Your task to perform on an android device: open a new tab in the chrome app Image 0: 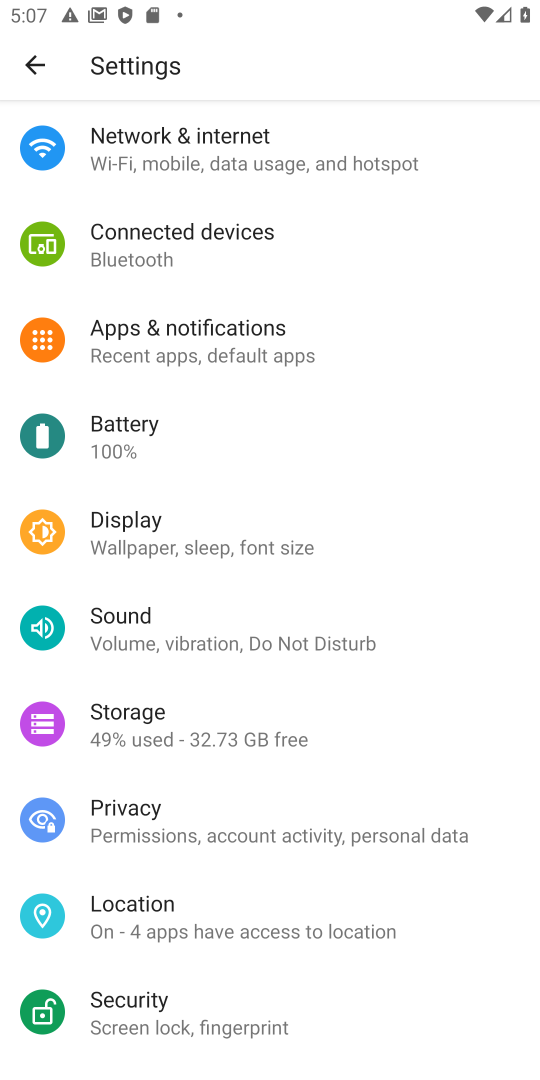
Step 0: press home button
Your task to perform on an android device: open a new tab in the chrome app Image 1: 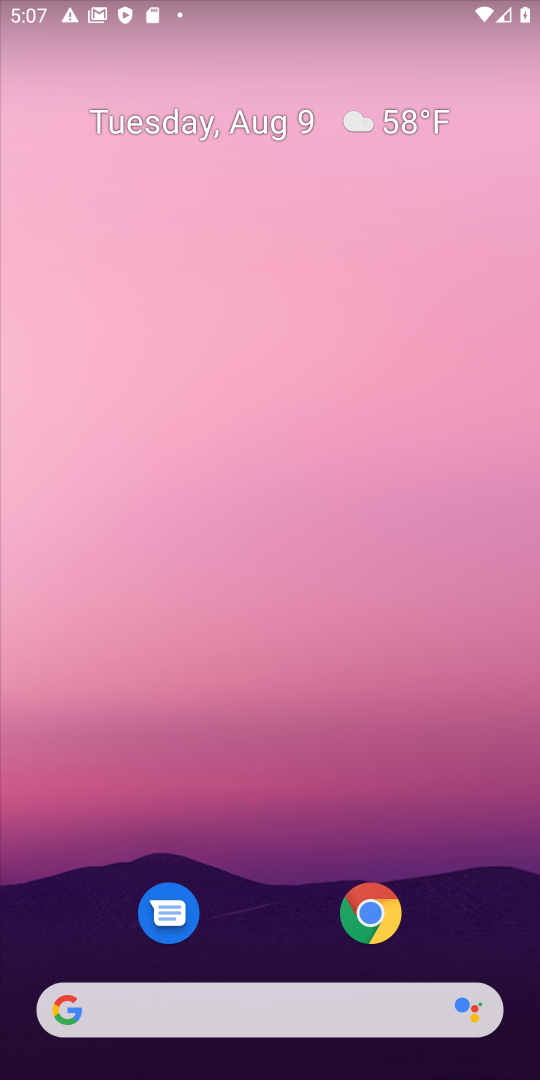
Step 1: click (379, 903)
Your task to perform on an android device: open a new tab in the chrome app Image 2: 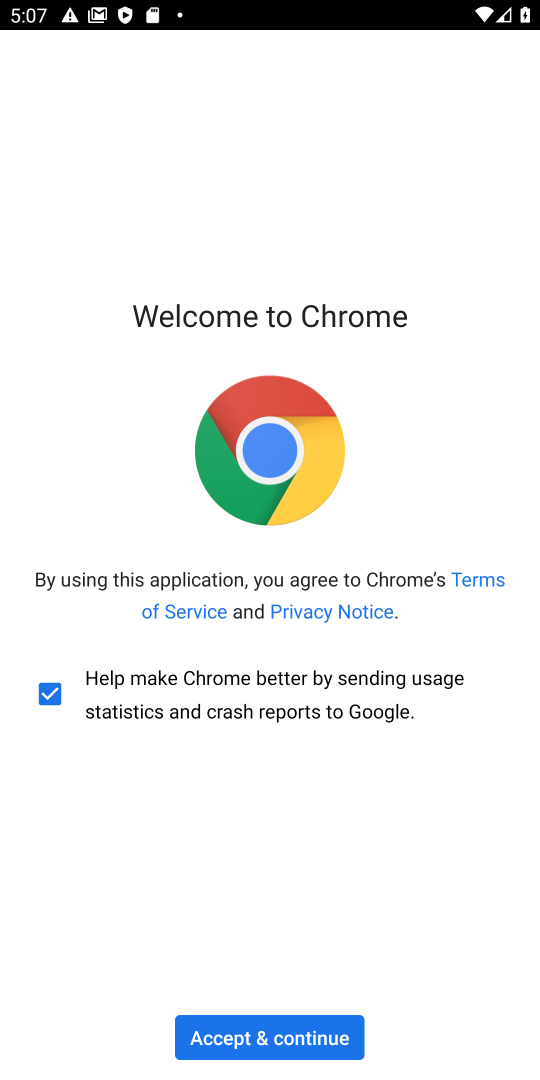
Step 2: click (271, 1031)
Your task to perform on an android device: open a new tab in the chrome app Image 3: 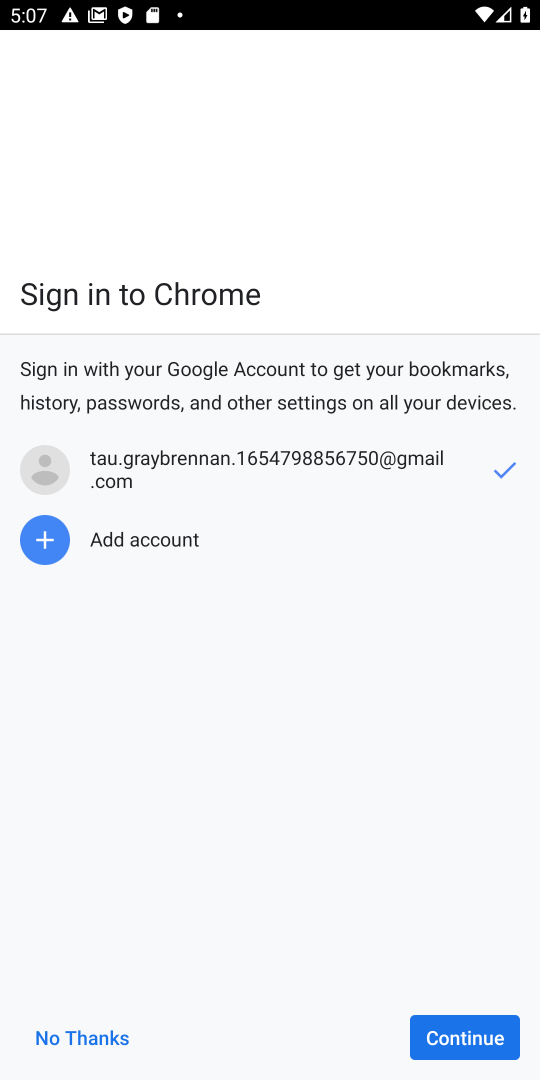
Step 3: click (499, 1043)
Your task to perform on an android device: open a new tab in the chrome app Image 4: 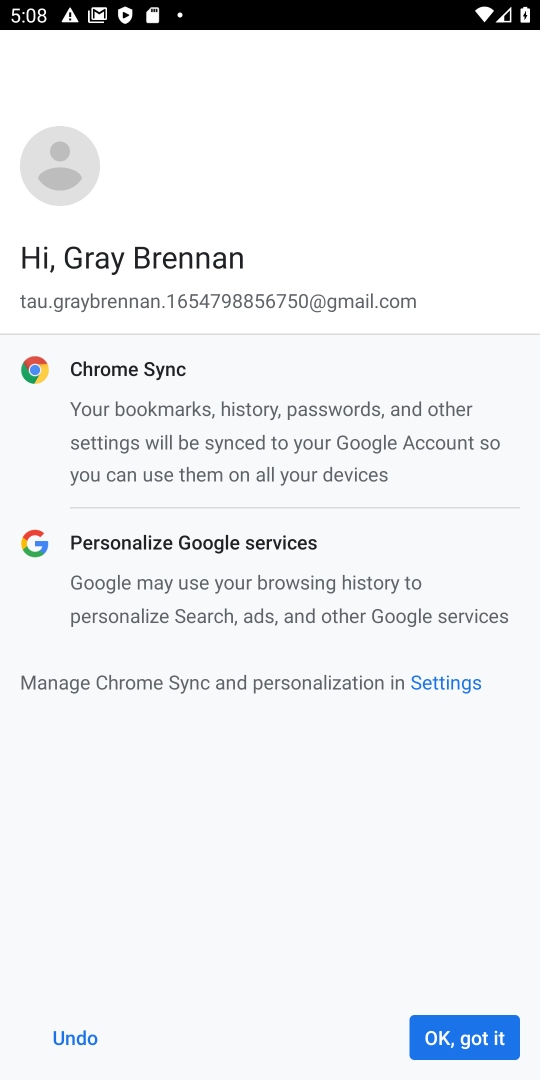
Step 4: click (499, 1043)
Your task to perform on an android device: open a new tab in the chrome app Image 5: 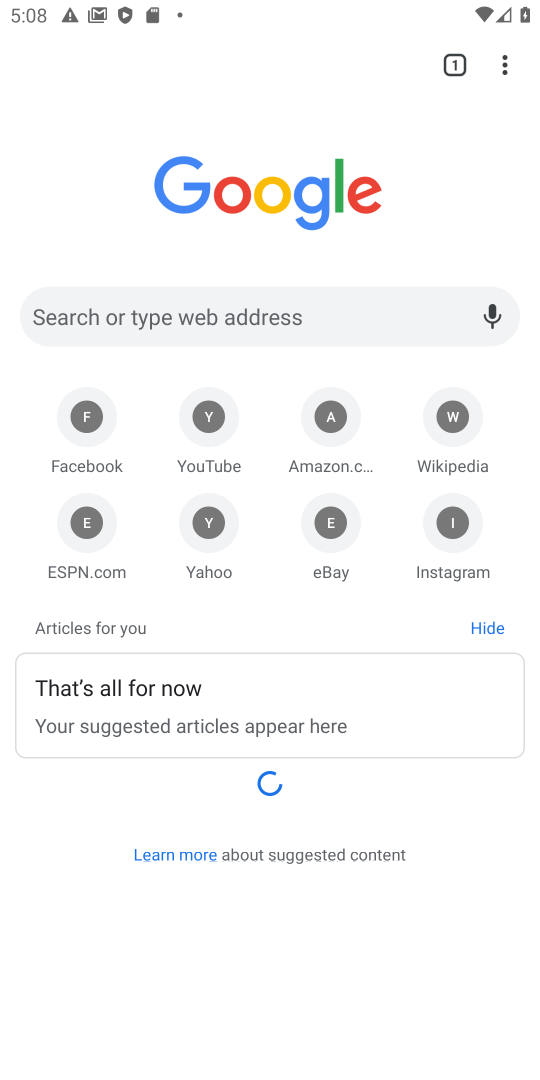
Step 5: click (499, 56)
Your task to perform on an android device: open a new tab in the chrome app Image 6: 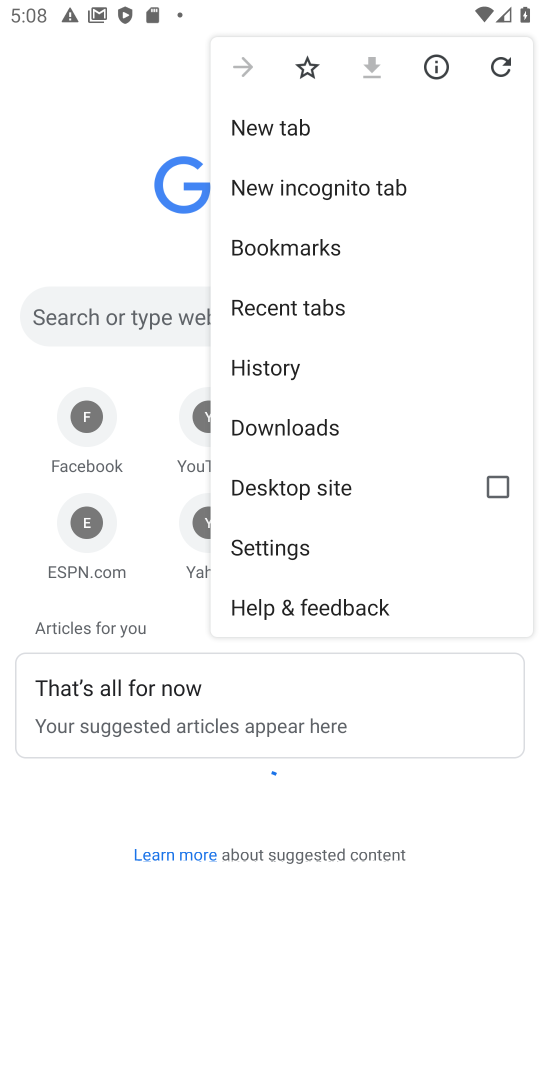
Step 6: click (370, 112)
Your task to perform on an android device: open a new tab in the chrome app Image 7: 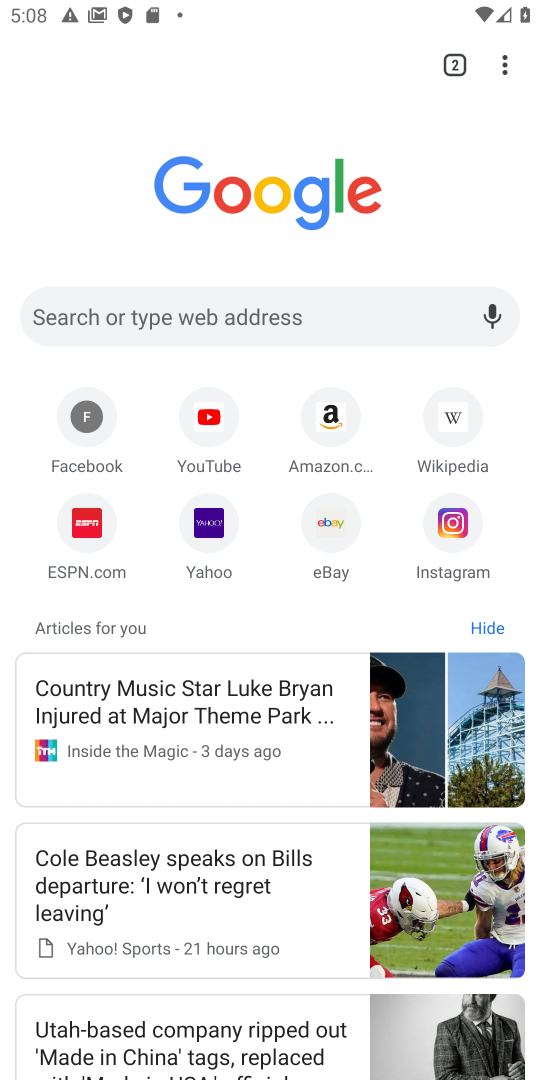
Step 7: task complete